Your task to perform on an android device: Do I have any events tomorrow? Image 0: 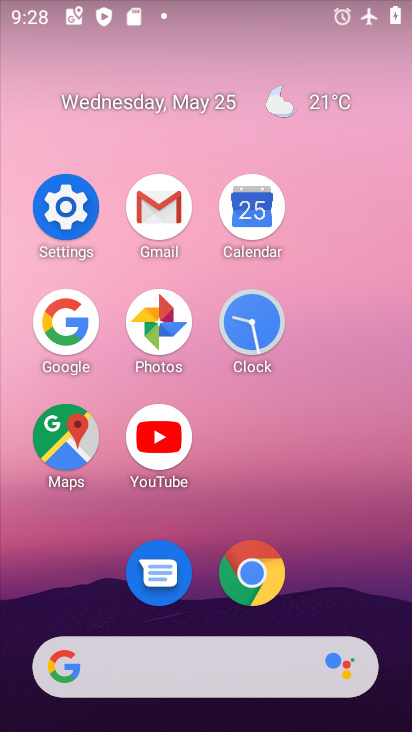
Step 0: click (241, 223)
Your task to perform on an android device: Do I have any events tomorrow? Image 1: 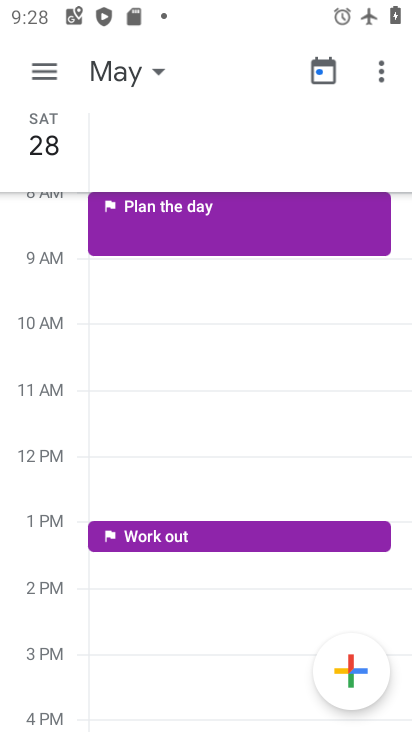
Step 1: click (131, 75)
Your task to perform on an android device: Do I have any events tomorrow? Image 2: 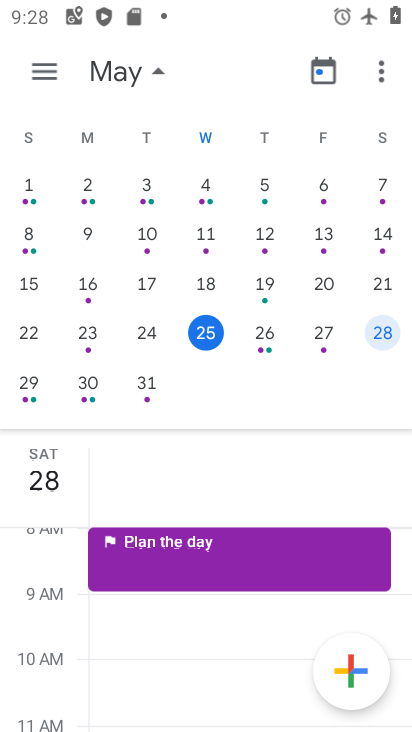
Step 2: click (326, 334)
Your task to perform on an android device: Do I have any events tomorrow? Image 3: 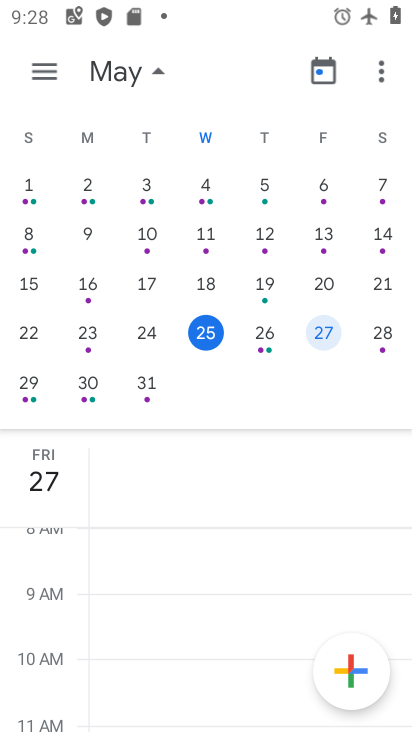
Step 3: click (43, 464)
Your task to perform on an android device: Do I have any events tomorrow? Image 4: 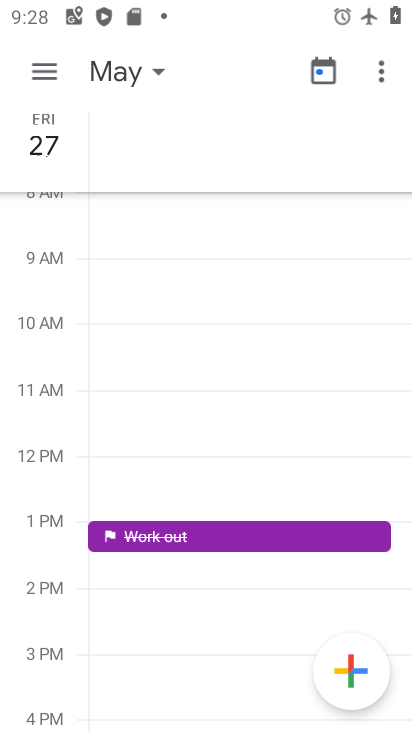
Step 4: task complete